Your task to perform on an android device: uninstall "Google Play services" Image 0: 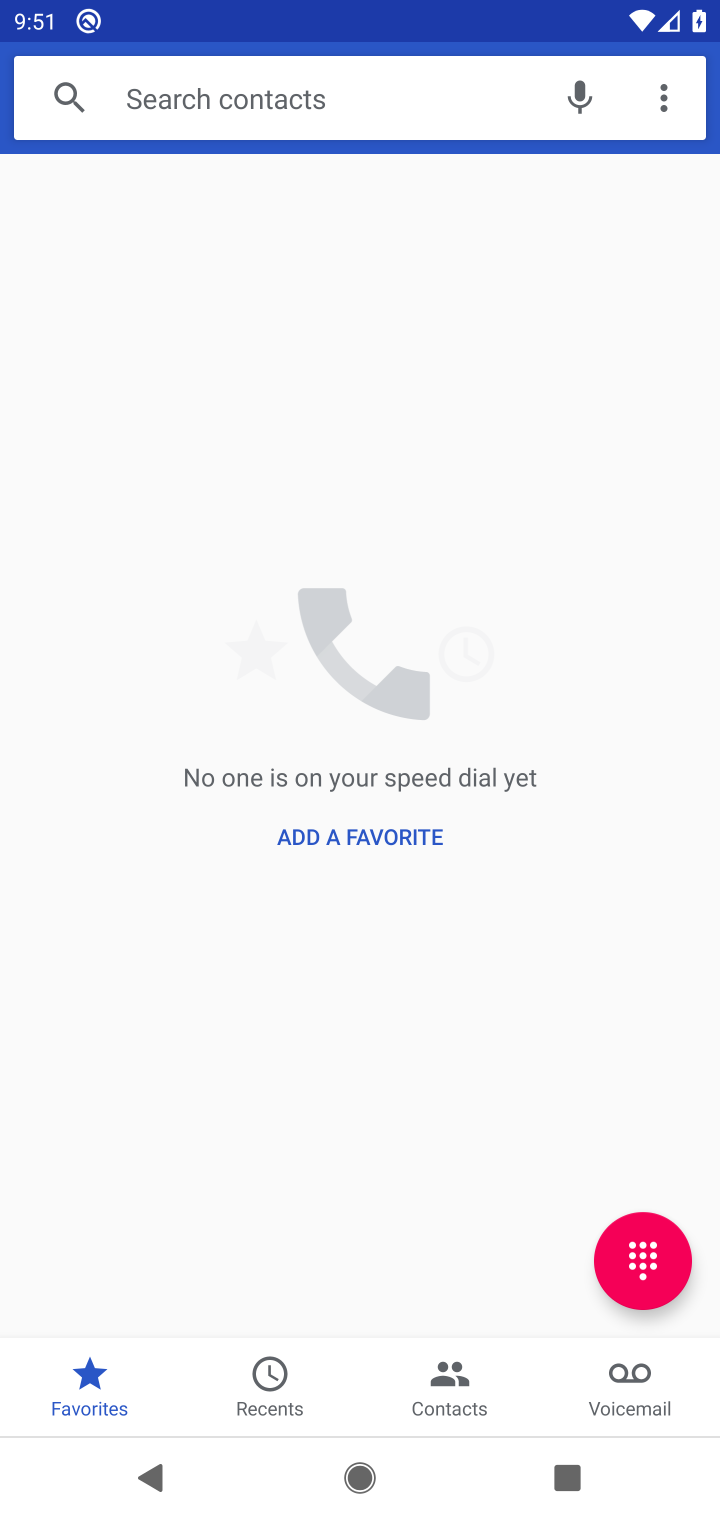
Step 0: press home button
Your task to perform on an android device: uninstall "Google Play services" Image 1: 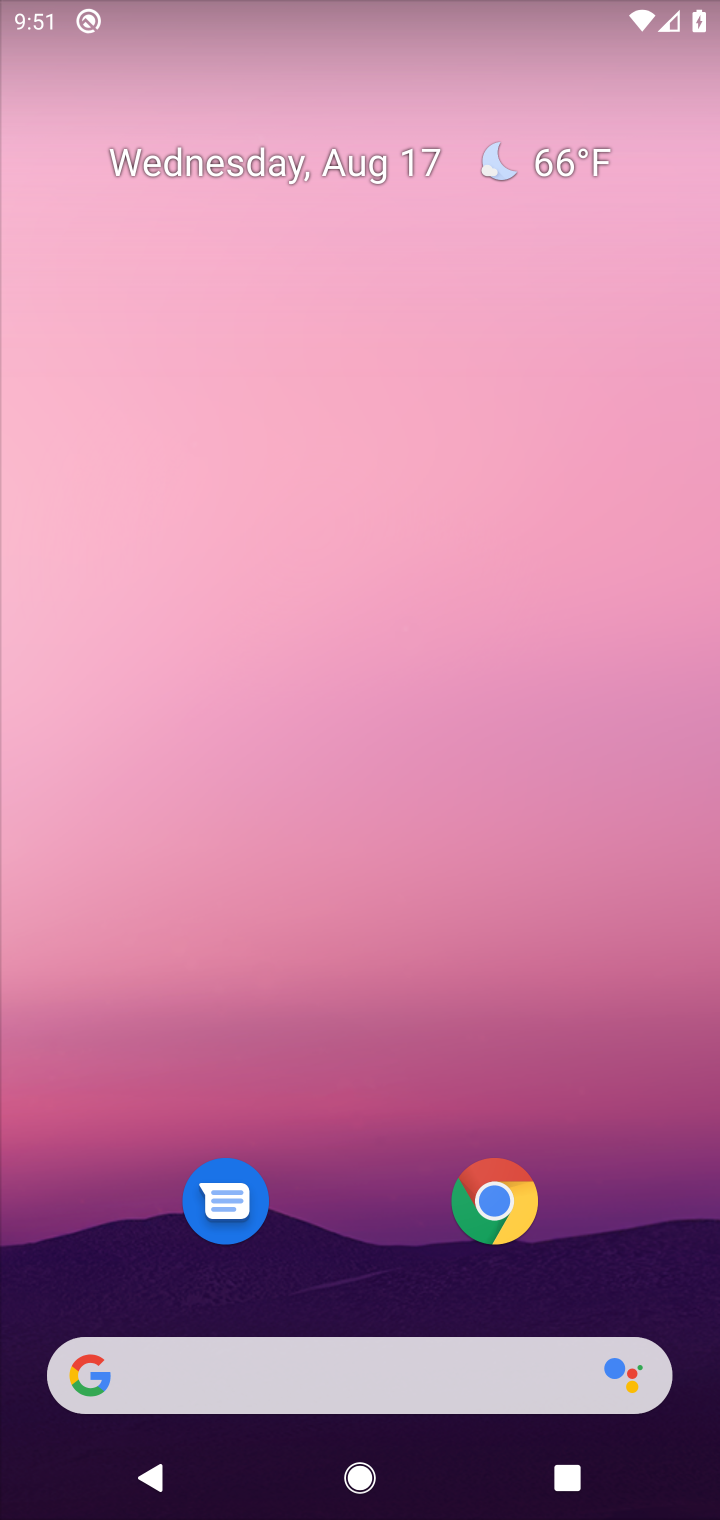
Step 1: drag from (357, 1285) to (393, 33)
Your task to perform on an android device: uninstall "Google Play services" Image 2: 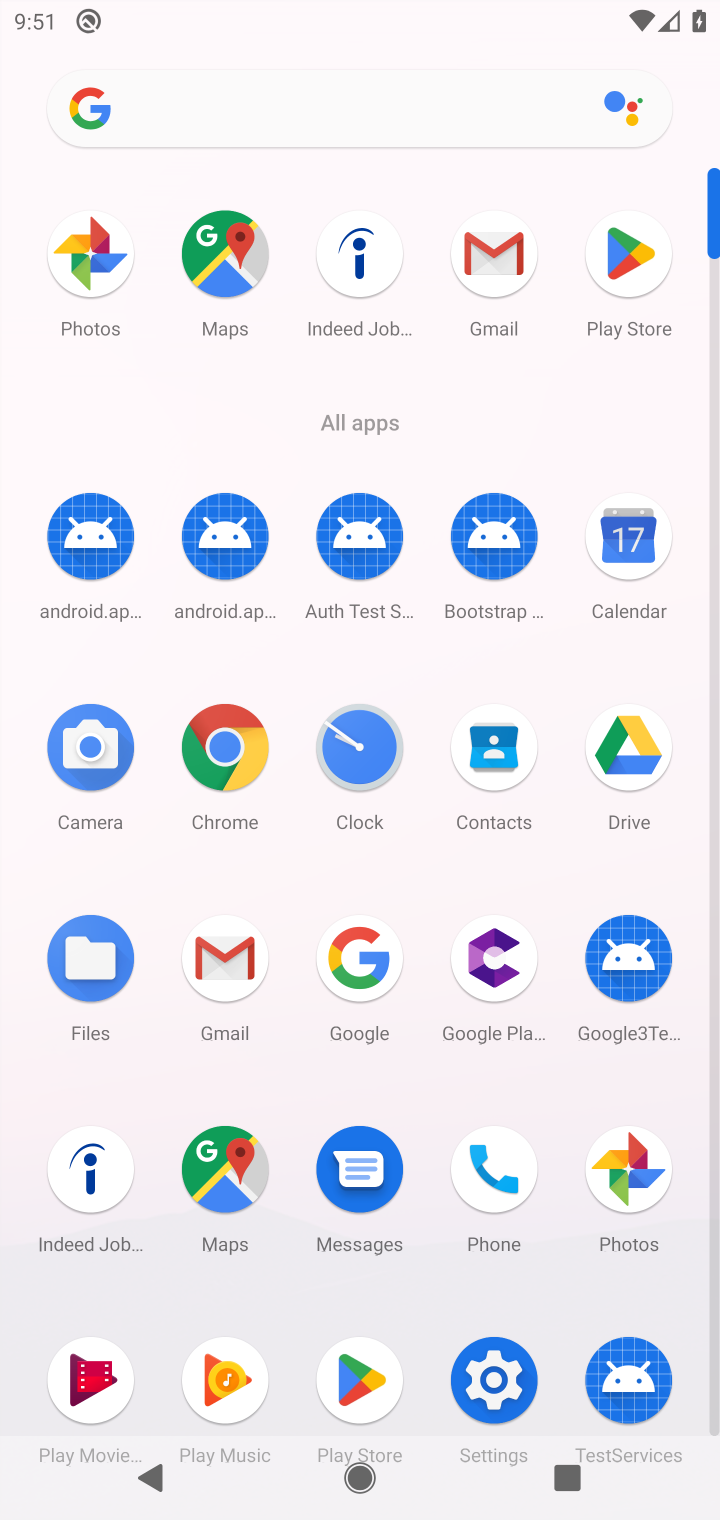
Step 2: click (353, 1374)
Your task to perform on an android device: uninstall "Google Play services" Image 3: 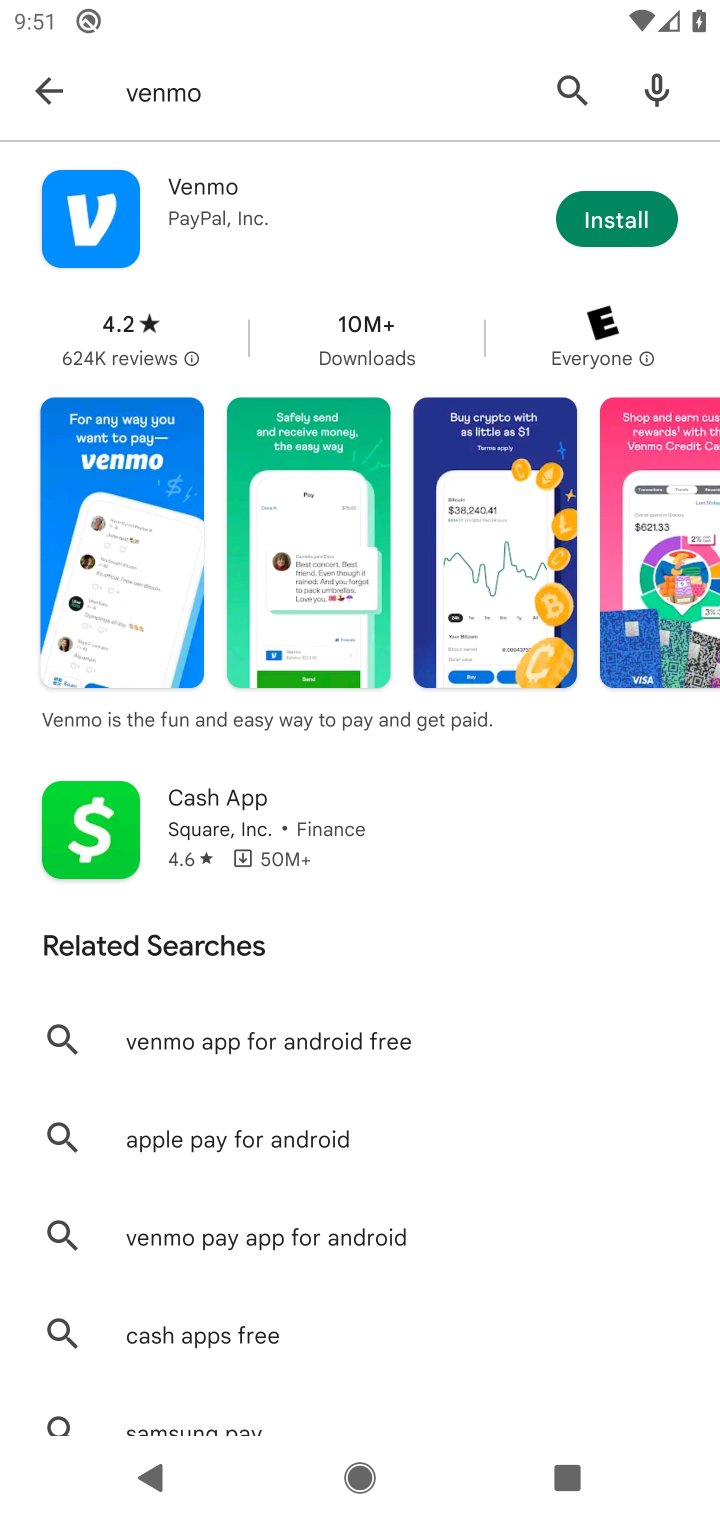
Step 3: click (567, 86)
Your task to perform on an android device: uninstall "Google Play services" Image 4: 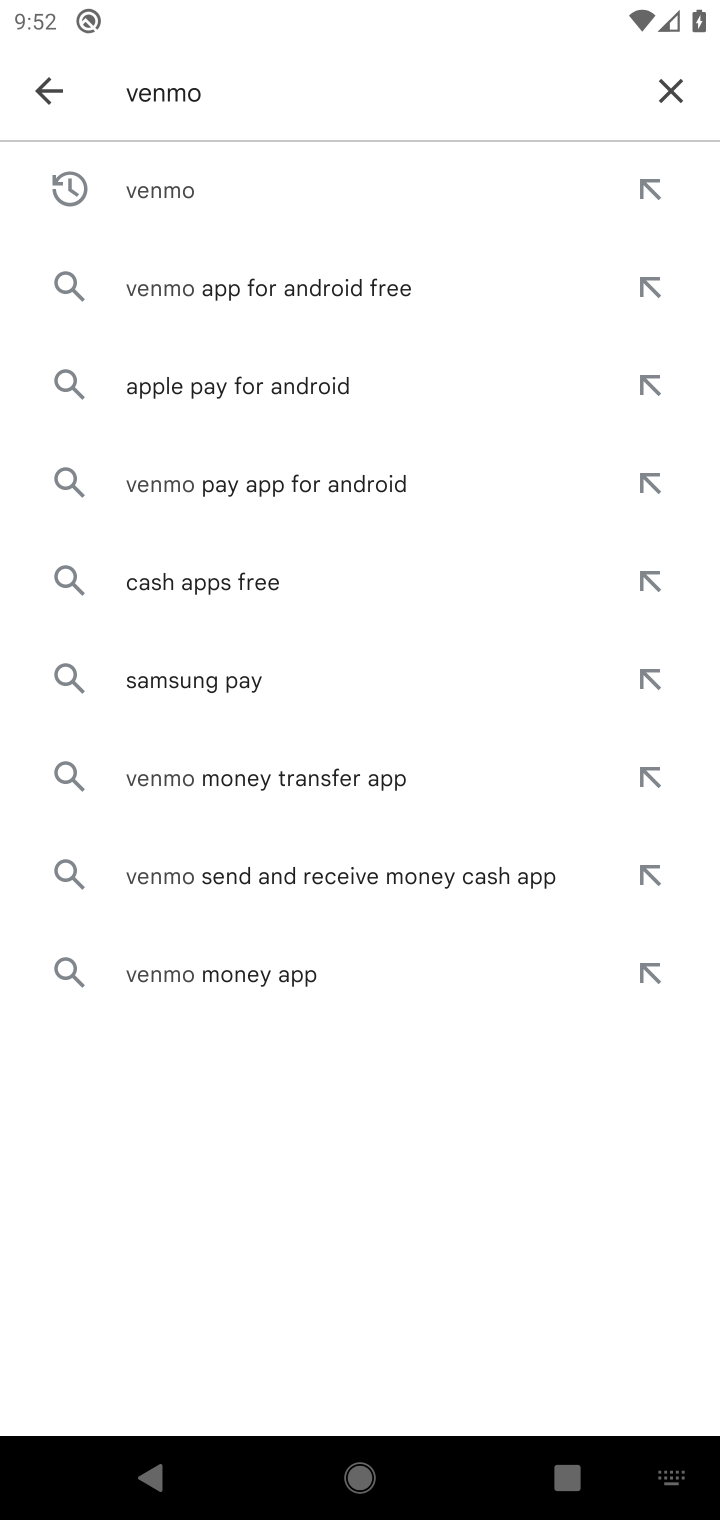
Step 4: click (667, 85)
Your task to perform on an android device: uninstall "Google Play services" Image 5: 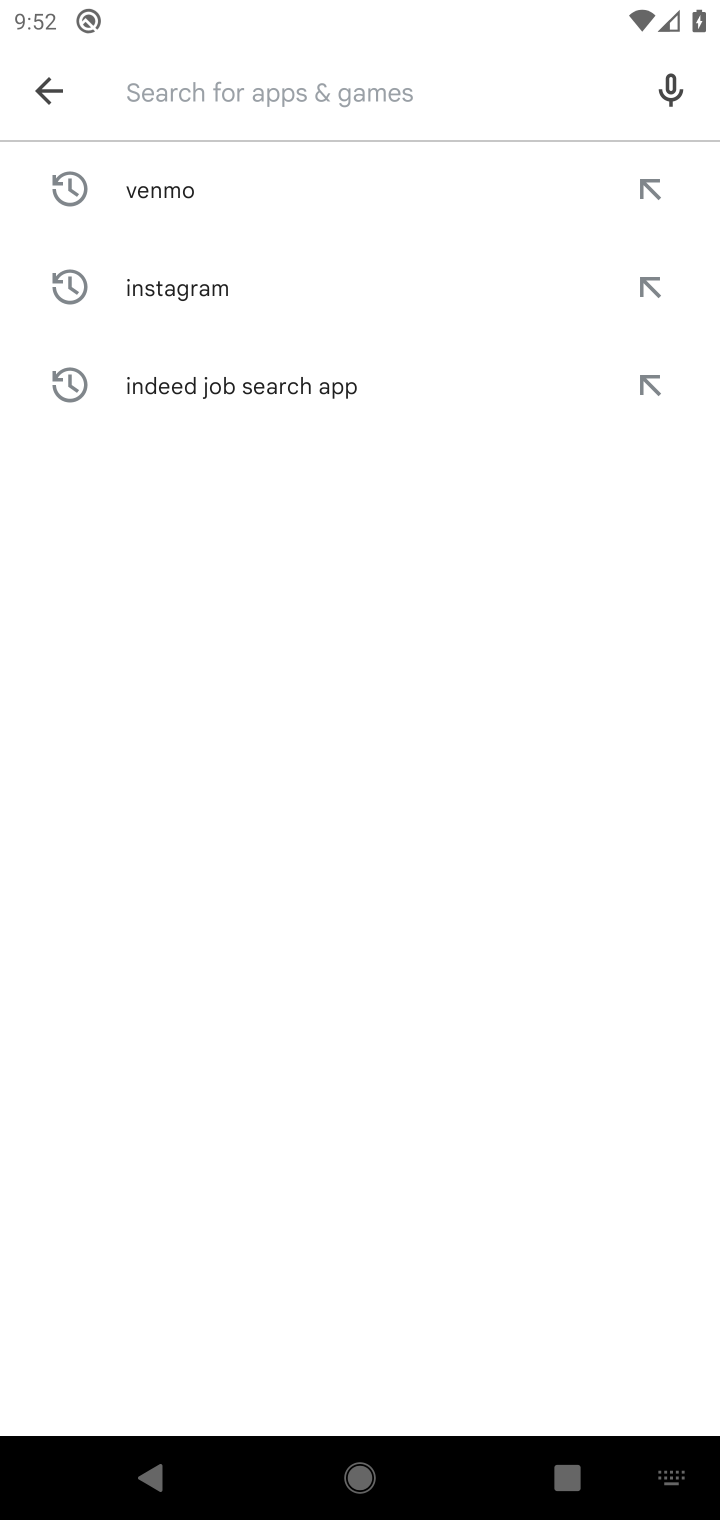
Step 5: type "Google Play services"
Your task to perform on an android device: uninstall "Google Play services" Image 6: 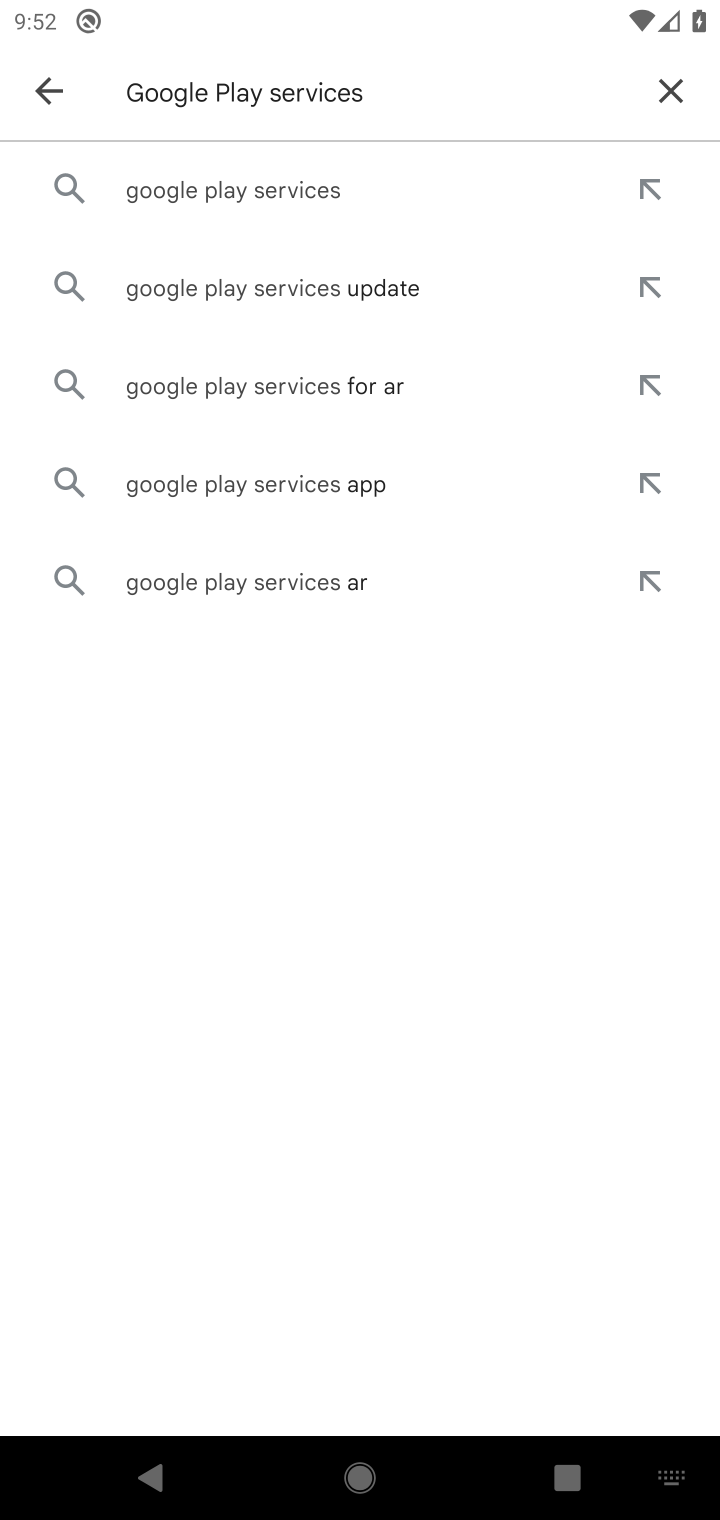
Step 6: click (259, 206)
Your task to perform on an android device: uninstall "Google Play services" Image 7: 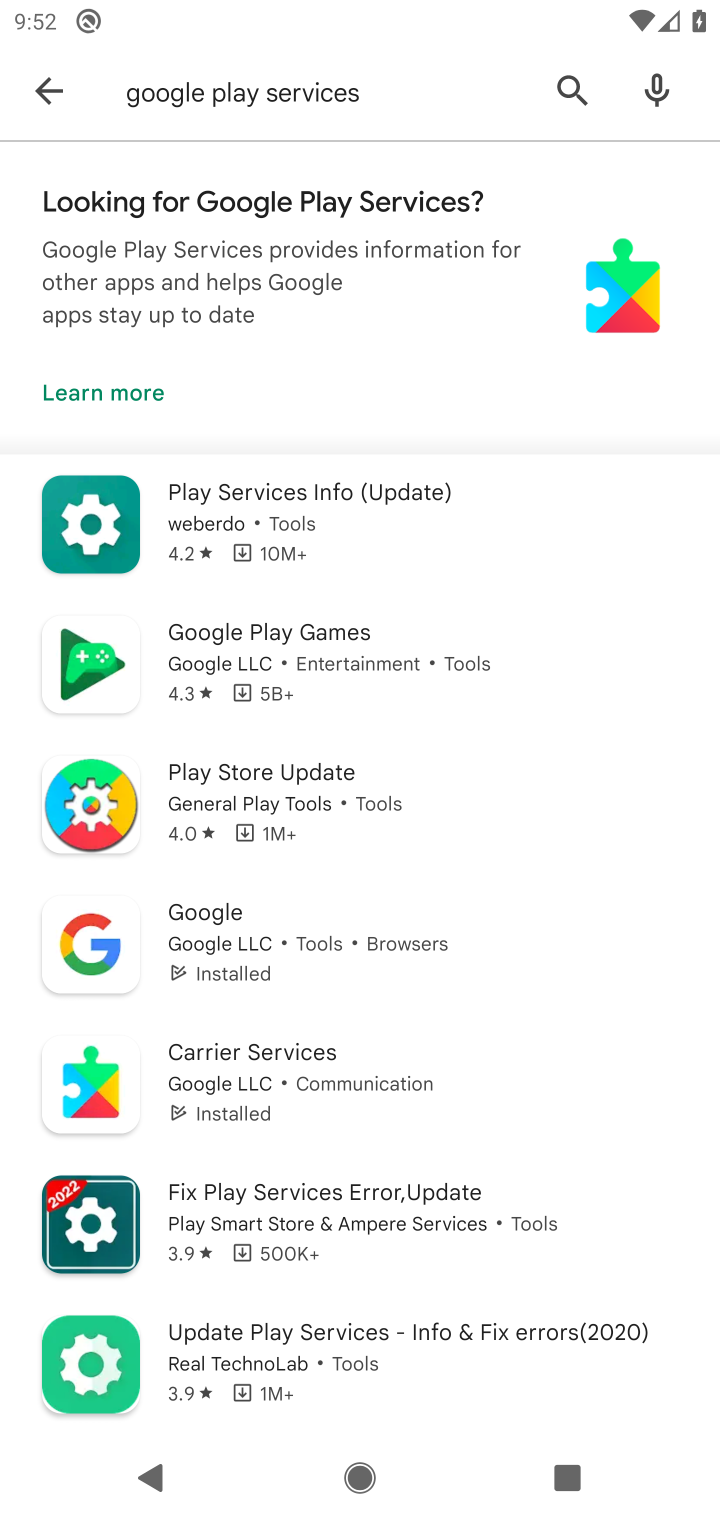
Step 7: task complete